Your task to perform on an android device: toggle javascript in the chrome app Image 0: 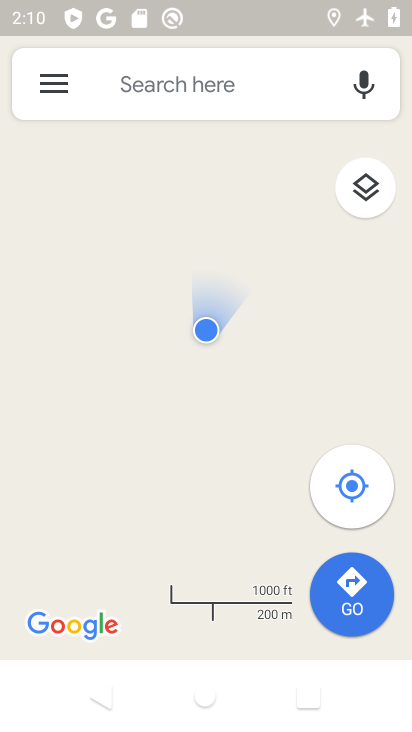
Step 0: press back button
Your task to perform on an android device: toggle javascript in the chrome app Image 1: 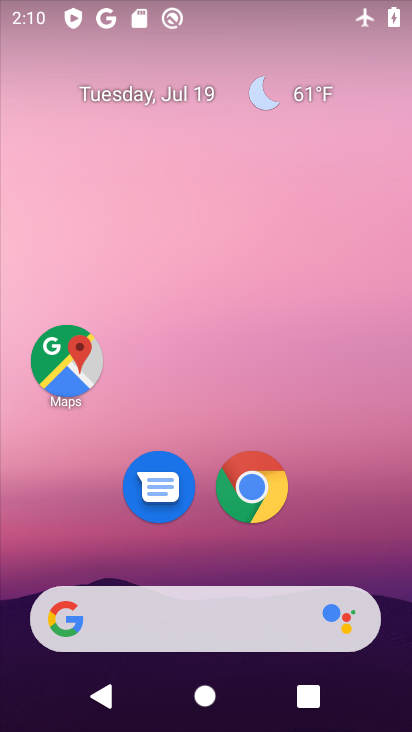
Step 1: click (259, 510)
Your task to perform on an android device: toggle javascript in the chrome app Image 2: 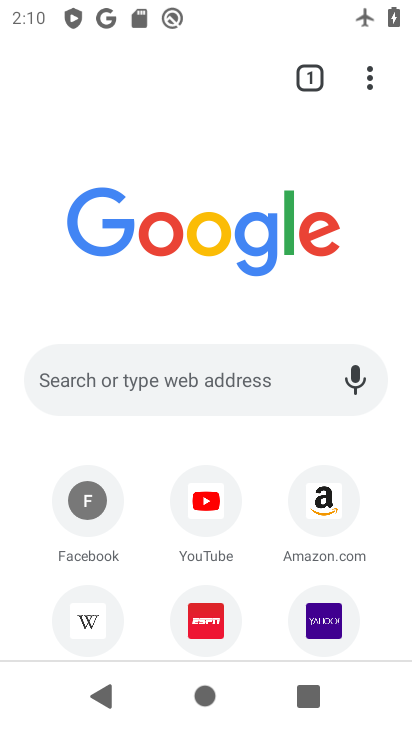
Step 2: drag from (367, 85) to (81, 532)
Your task to perform on an android device: toggle javascript in the chrome app Image 3: 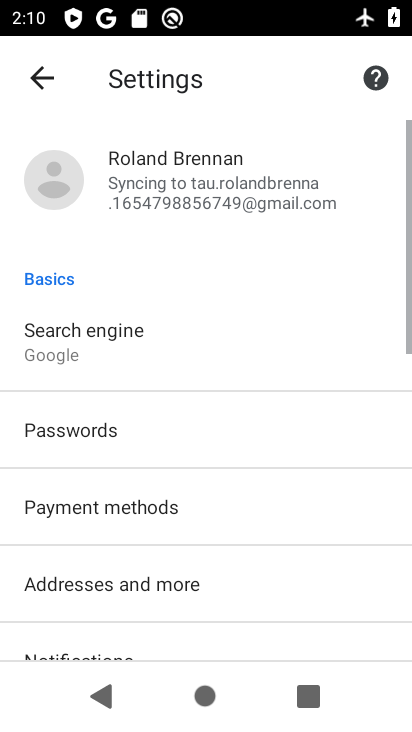
Step 3: drag from (168, 568) to (270, 9)
Your task to perform on an android device: toggle javascript in the chrome app Image 4: 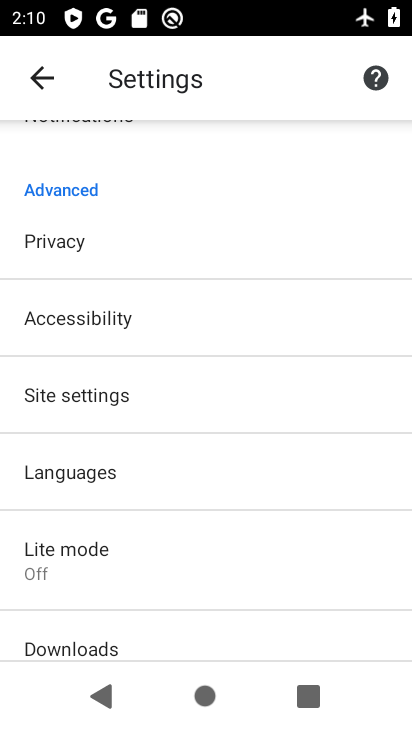
Step 4: click (80, 379)
Your task to perform on an android device: toggle javascript in the chrome app Image 5: 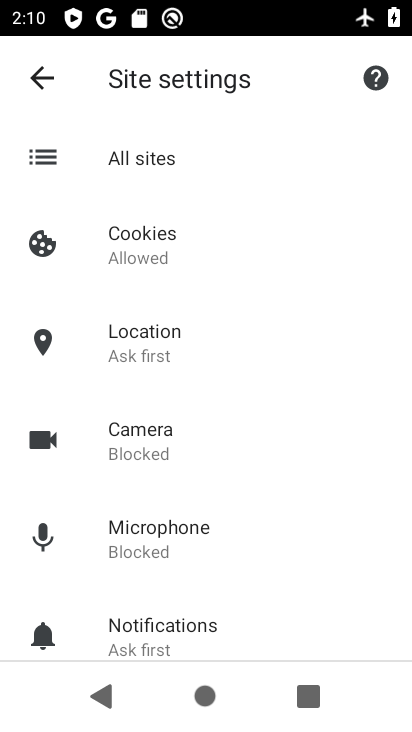
Step 5: drag from (183, 597) to (291, 164)
Your task to perform on an android device: toggle javascript in the chrome app Image 6: 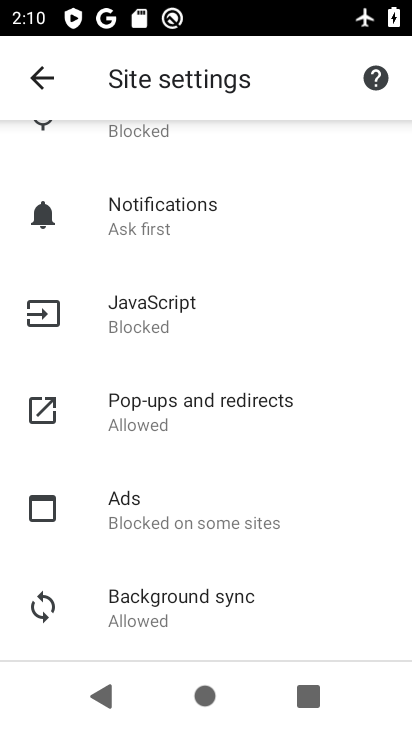
Step 6: click (107, 326)
Your task to perform on an android device: toggle javascript in the chrome app Image 7: 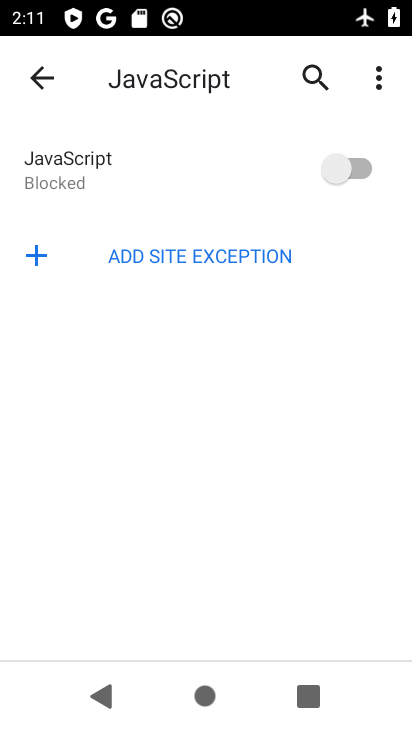
Step 7: click (336, 166)
Your task to perform on an android device: toggle javascript in the chrome app Image 8: 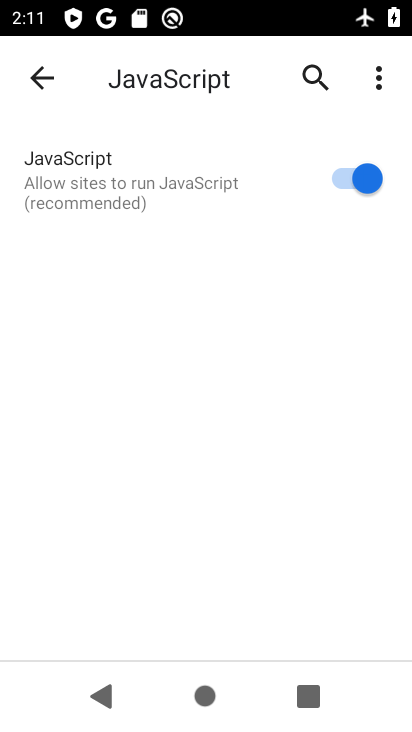
Step 8: task complete